Your task to perform on an android device: toggle data saver in the chrome app Image 0: 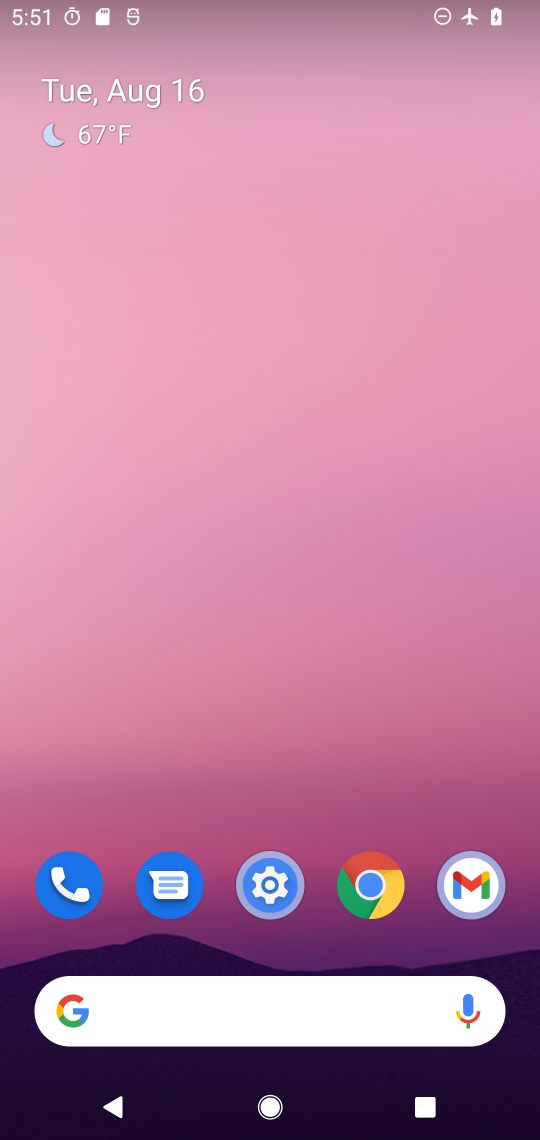
Step 0: drag from (186, 946) to (216, 346)
Your task to perform on an android device: toggle data saver in the chrome app Image 1: 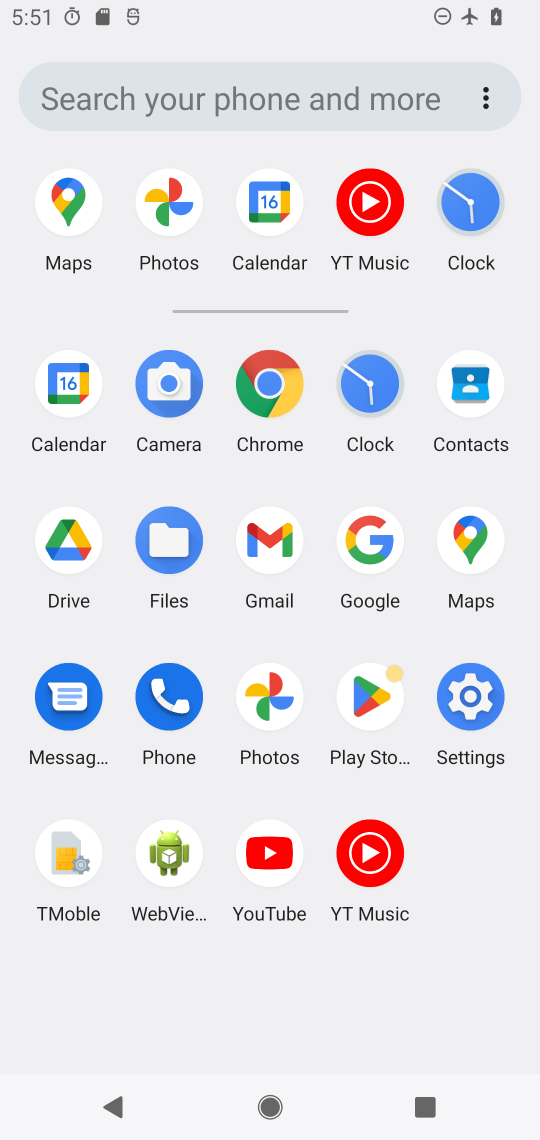
Step 1: click (264, 377)
Your task to perform on an android device: toggle data saver in the chrome app Image 2: 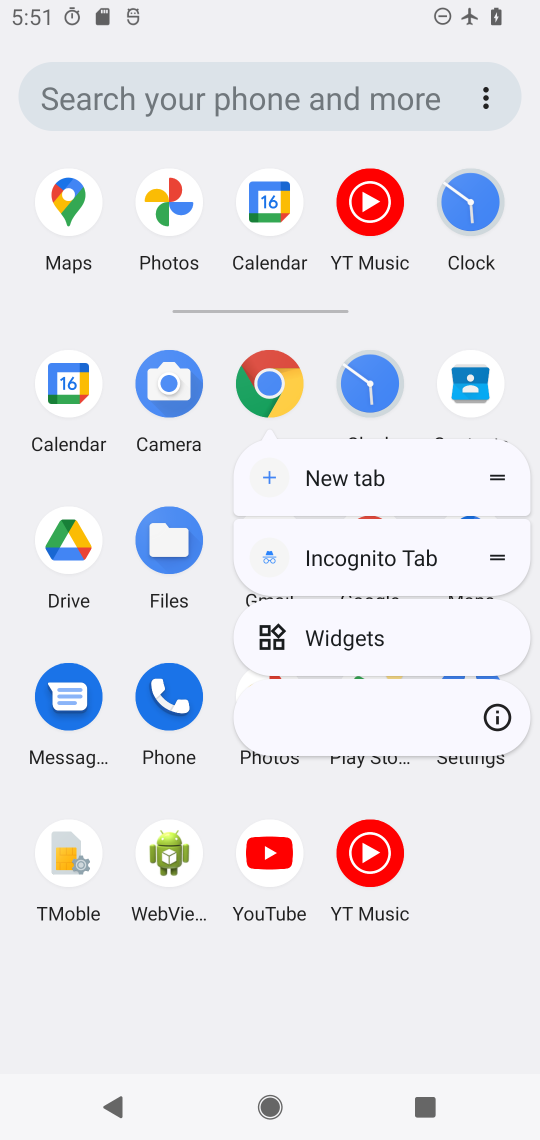
Step 2: click (258, 377)
Your task to perform on an android device: toggle data saver in the chrome app Image 3: 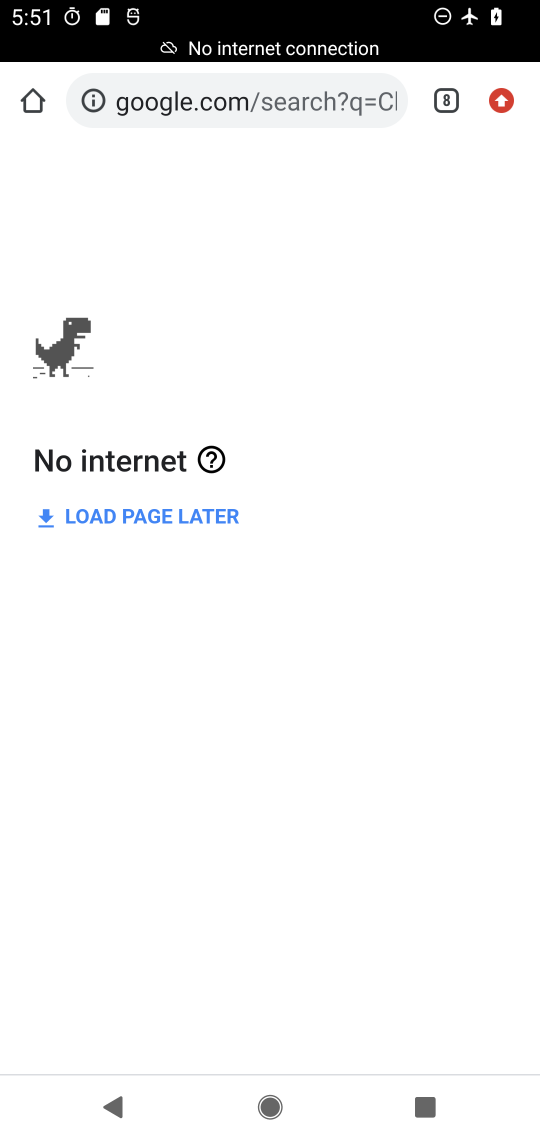
Step 3: click (518, 98)
Your task to perform on an android device: toggle data saver in the chrome app Image 4: 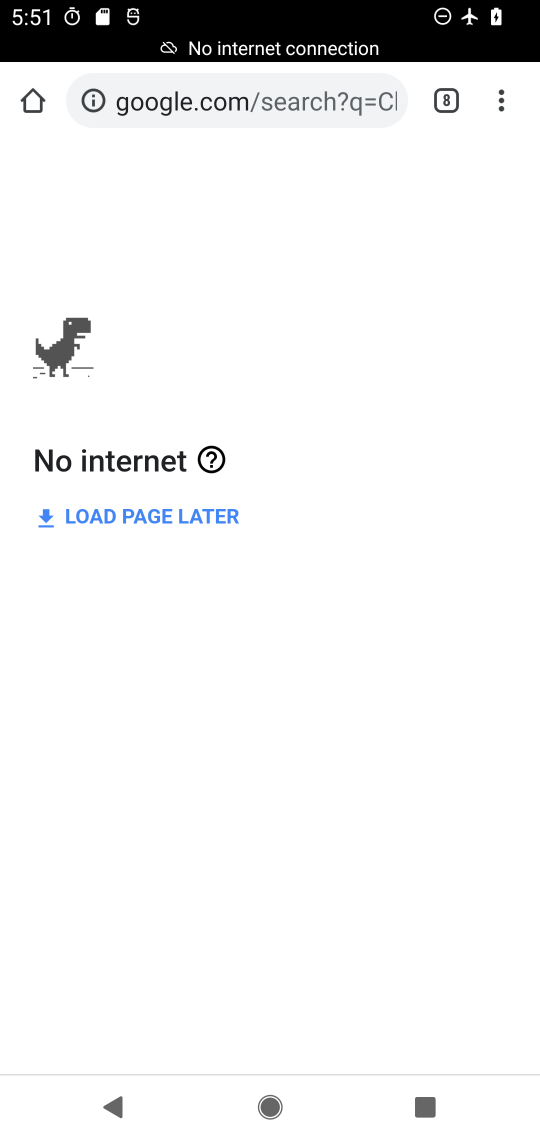
Step 4: click (507, 86)
Your task to perform on an android device: toggle data saver in the chrome app Image 5: 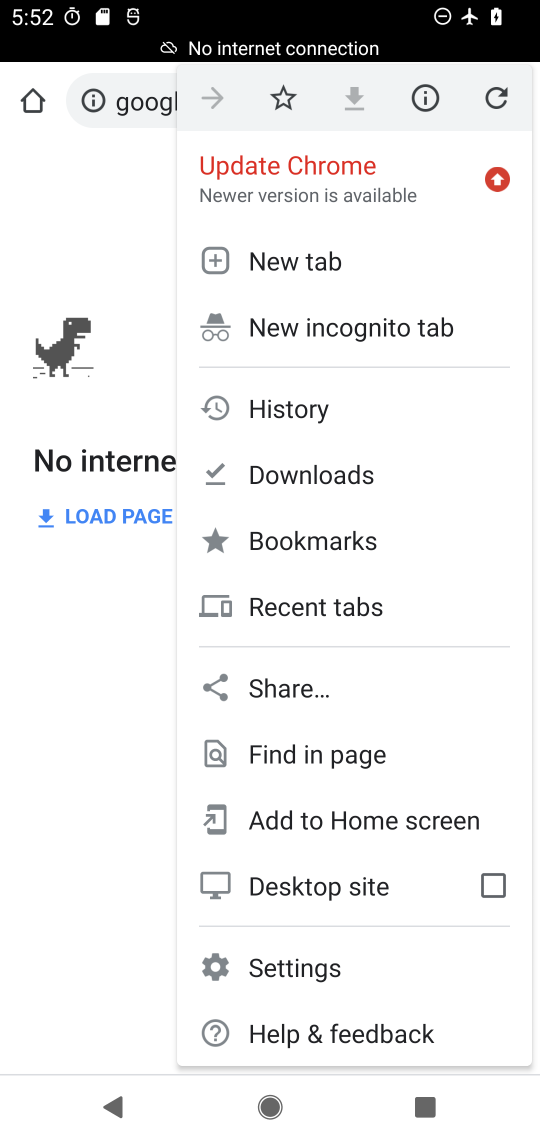
Step 5: click (308, 953)
Your task to perform on an android device: toggle data saver in the chrome app Image 6: 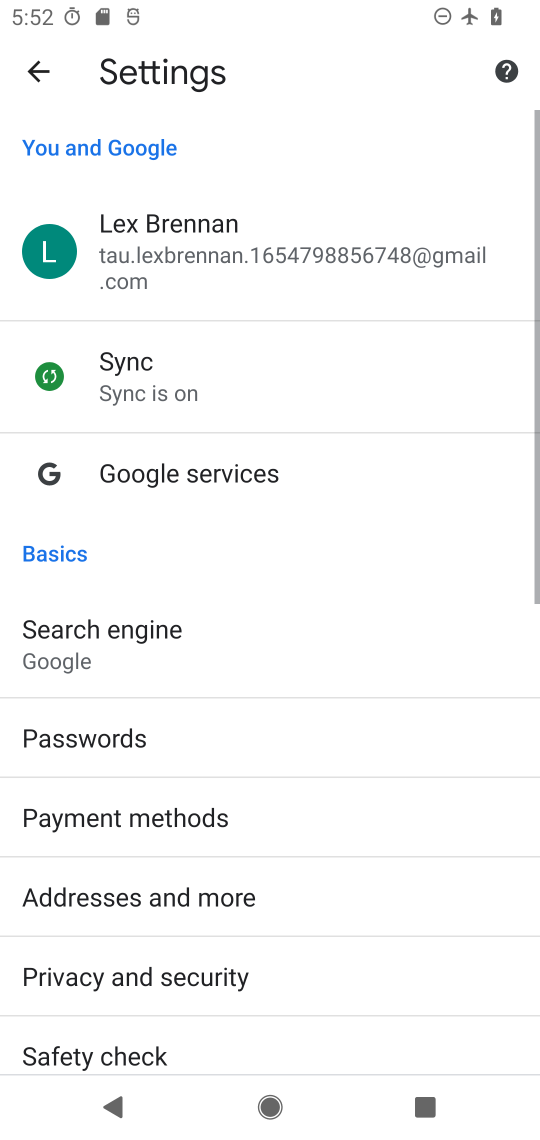
Step 6: drag from (197, 954) to (295, 200)
Your task to perform on an android device: toggle data saver in the chrome app Image 7: 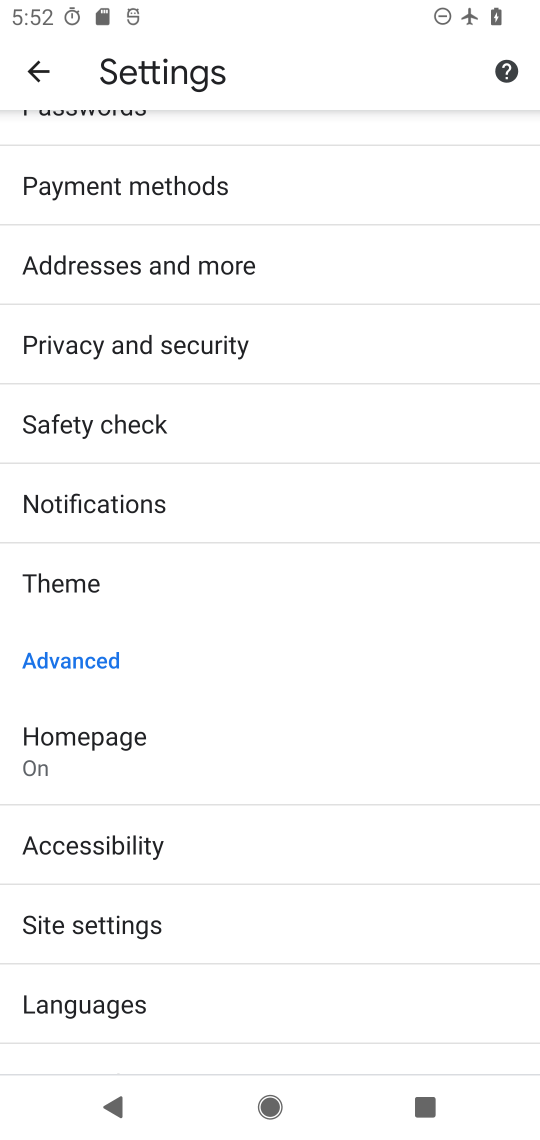
Step 7: drag from (167, 996) to (244, 259)
Your task to perform on an android device: toggle data saver in the chrome app Image 8: 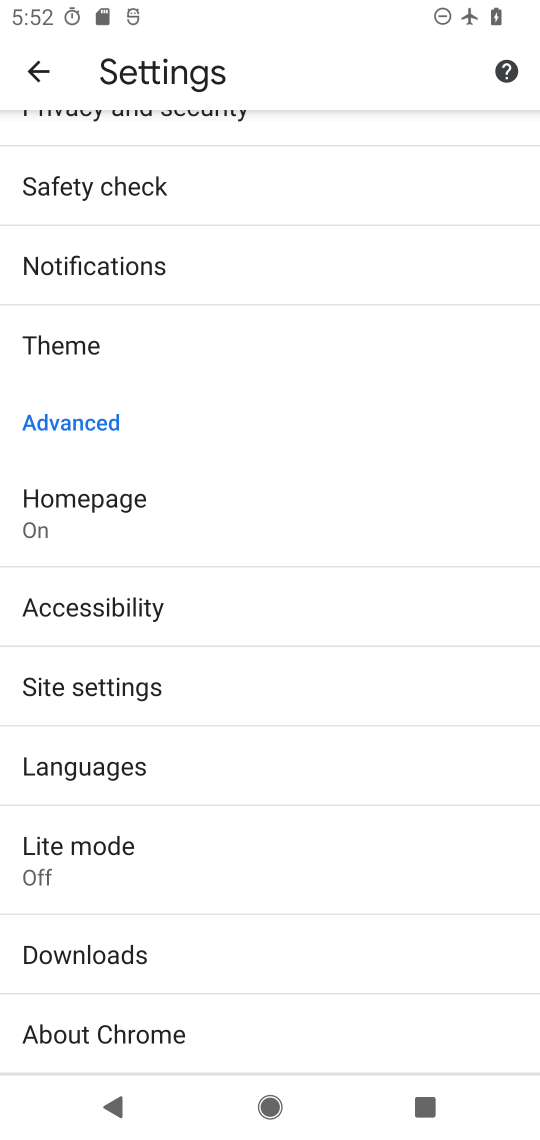
Step 8: click (126, 846)
Your task to perform on an android device: toggle data saver in the chrome app Image 9: 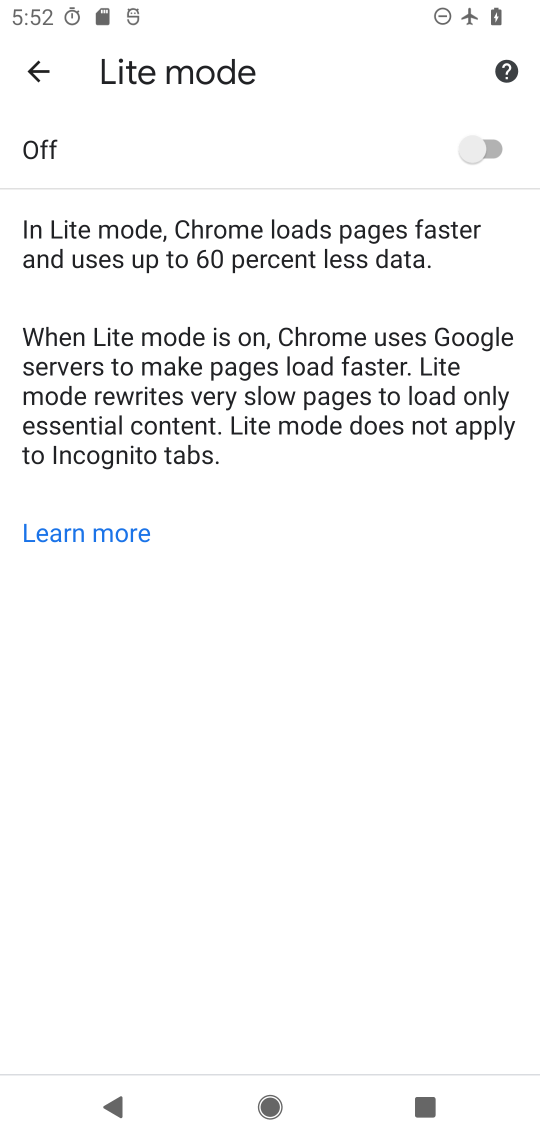
Step 9: click (476, 149)
Your task to perform on an android device: toggle data saver in the chrome app Image 10: 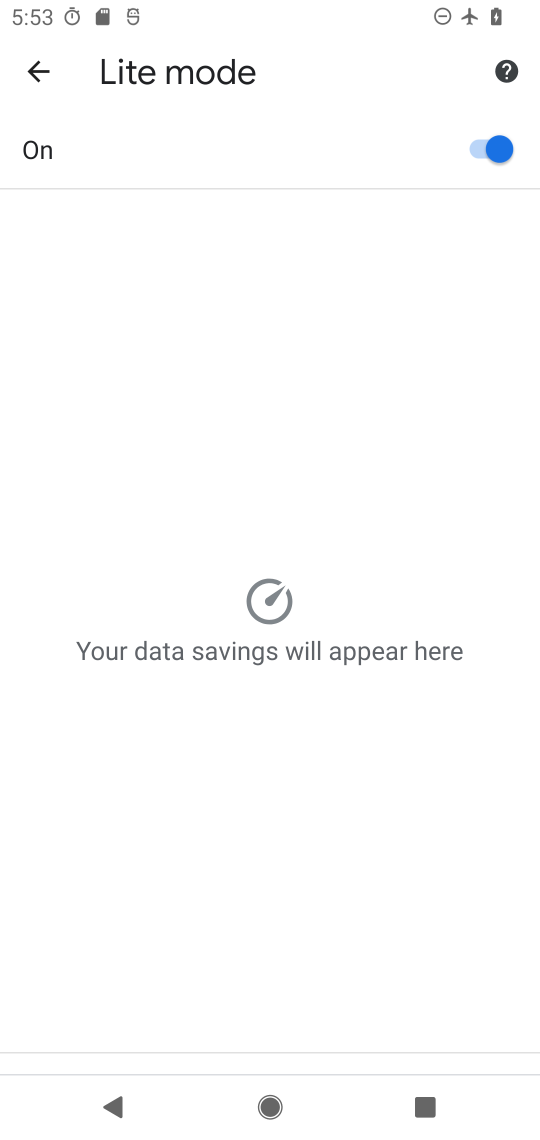
Step 10: task complete